Your task to perform on an android device: Search for the Best selling coffee table on Ikea Image 0: 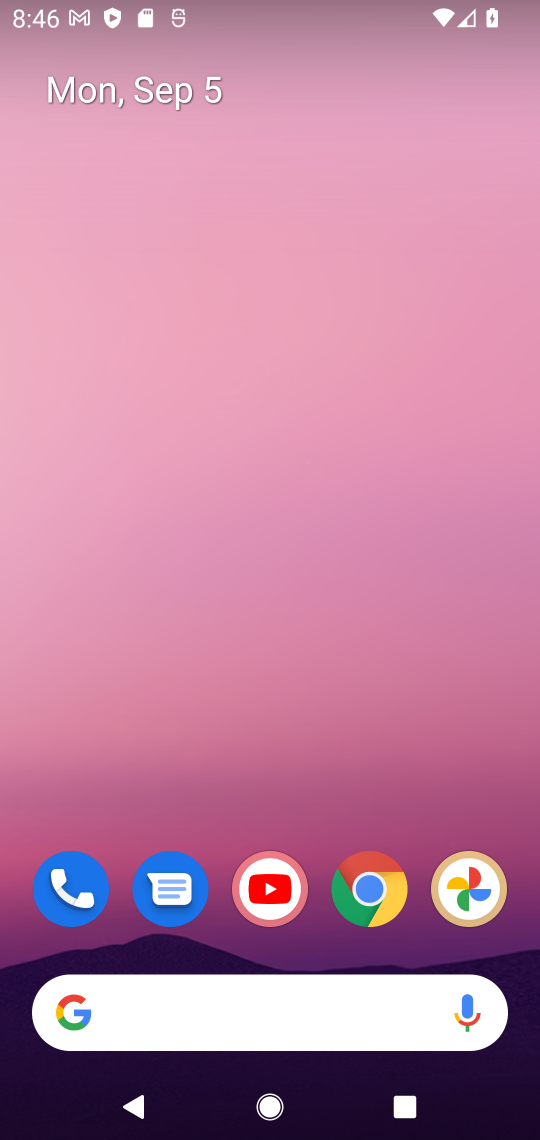
Step 0: click (192, 1017)
Your task to perform on an android device: Search for the Best selling coffee table on Ikea Image 1: 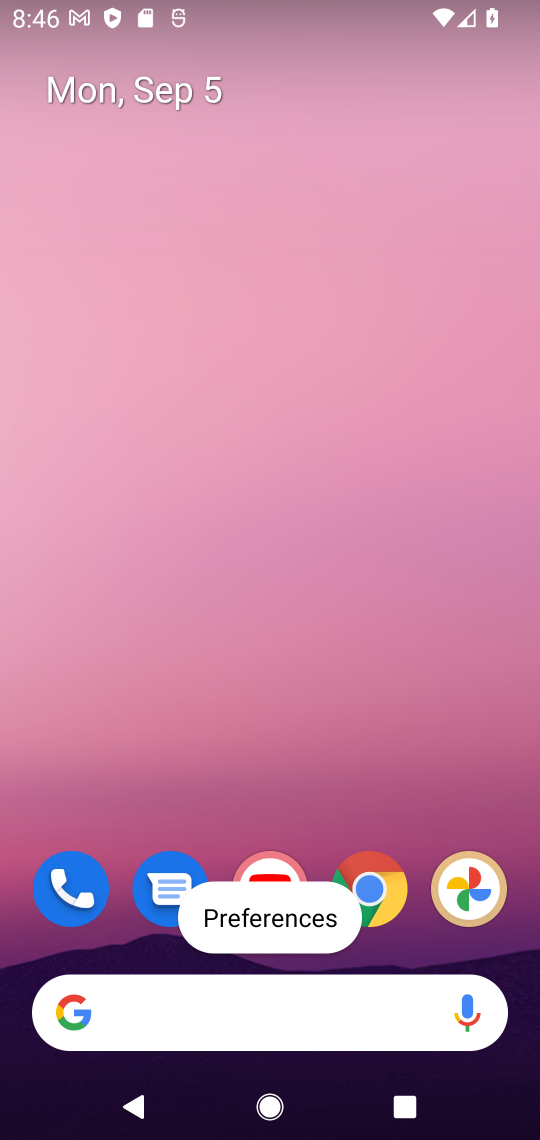
Step 1: click (205, 1018)
Your task to perform on an android device: Search for the Best selling coffee table on Ikea Image 2: 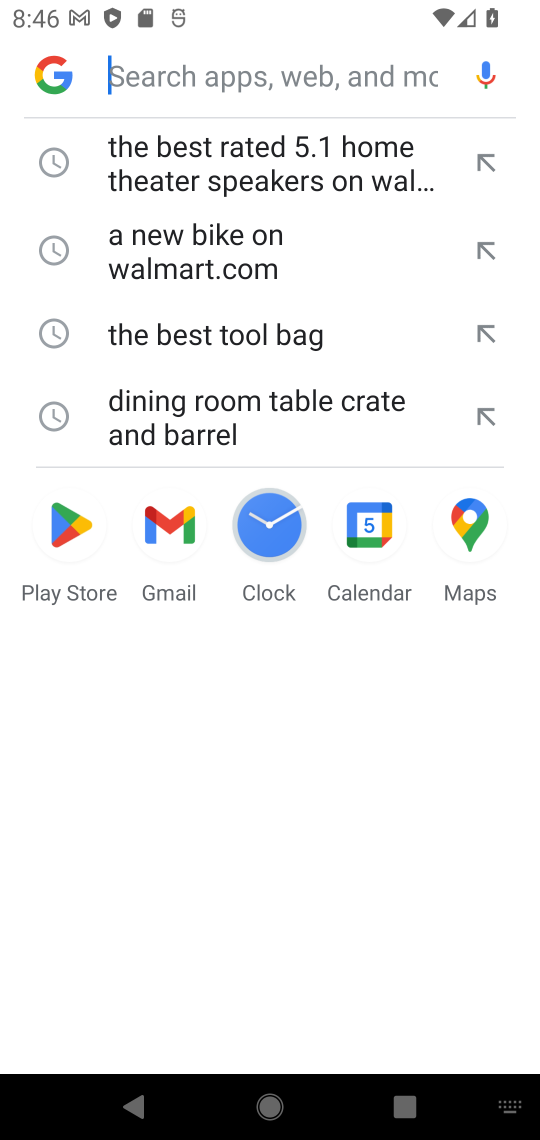
Step 2: type " the Best selling coffee table on Ikea"
Your task to perform on an android device: Search for the Best selling coffee table on Ikea Image 3: 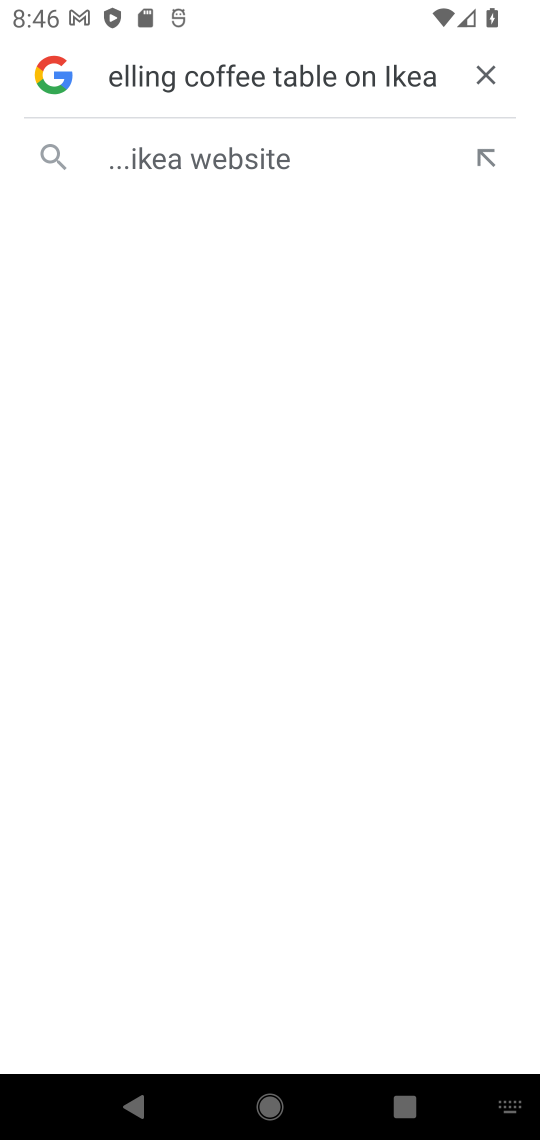
Step 3: click (160, 149)
Your task to perform on an android device: Search for the Best selling coffee table on Ikea Image 4: 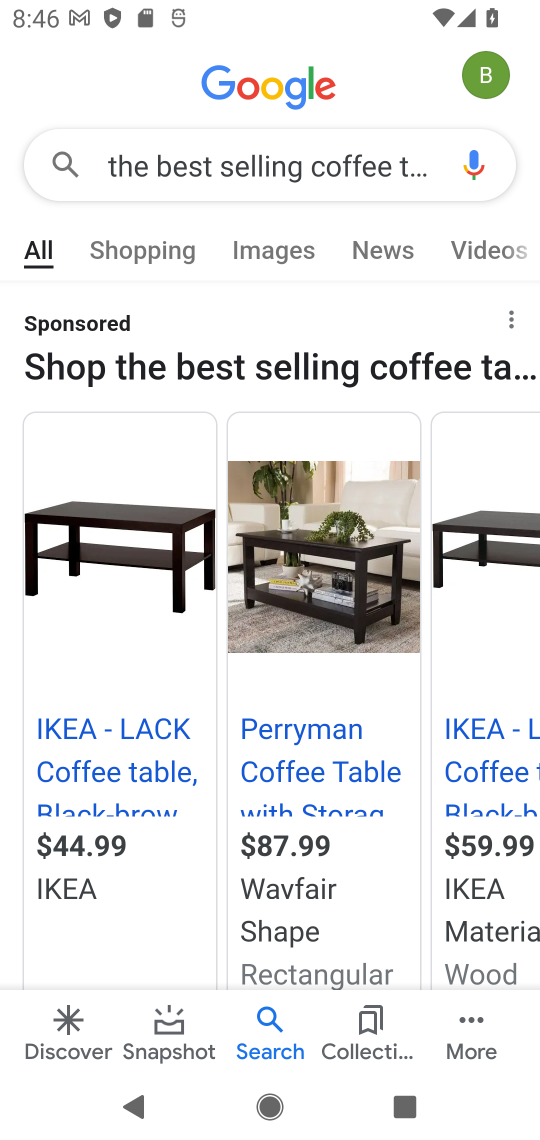
Step 4: click (258, 268)
Your task to perform on an android device: Search for the Best selling coffee table on Ikea Image 5: 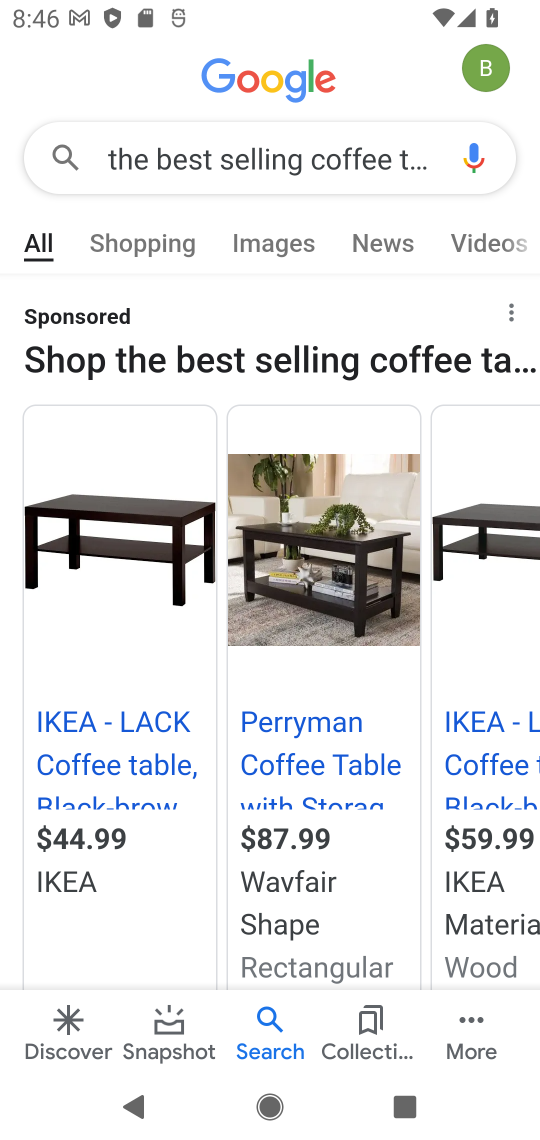
Step 5: task complete